Your task to perform on an android device: turn on translation in the chrome app Image 0: 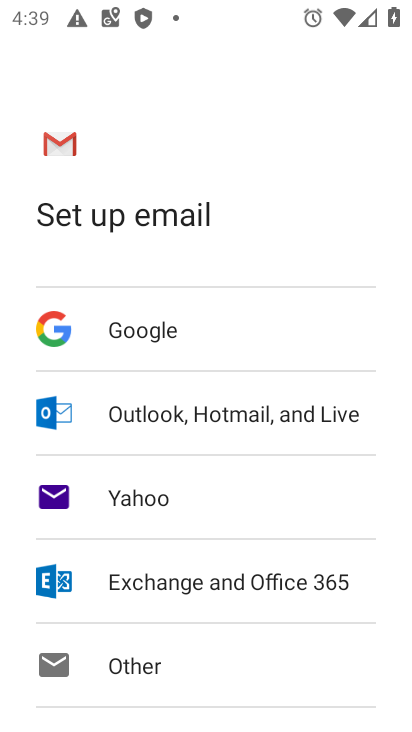
Step 0: press home button
Your task to perform on an android device: turn on translation in the chrome app Image 1: 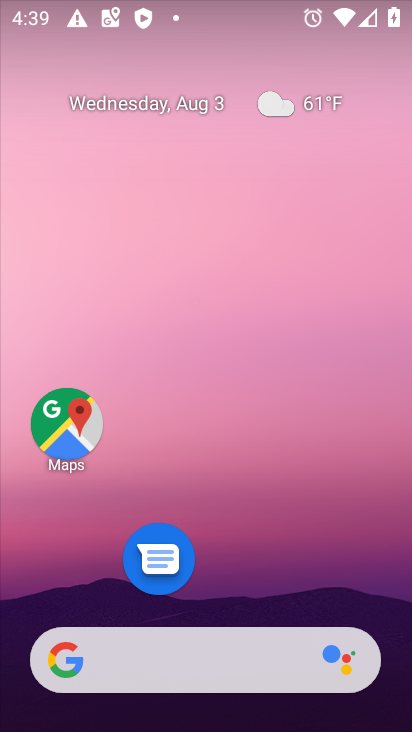
Step 1: drag from (273, 648) to (265, 145)
Your task to perform on an android device: turn on translation in the chrome app Image 2: 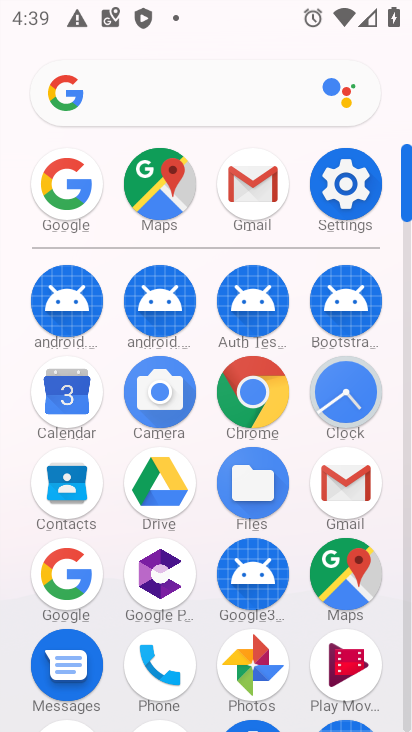
Step 2: click (248, 389)
Your task to perform on an android device: turn on translation in the chrome app Image 3: 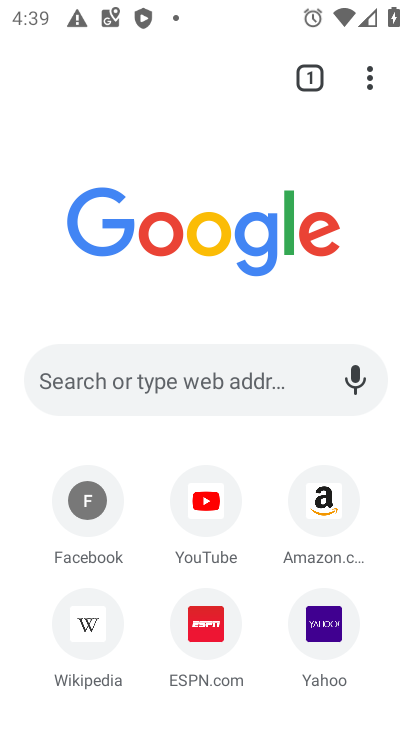
Step 3: click (370, 79)
Your task to perform on an android device: turn on translation in the chrome app Image 4: 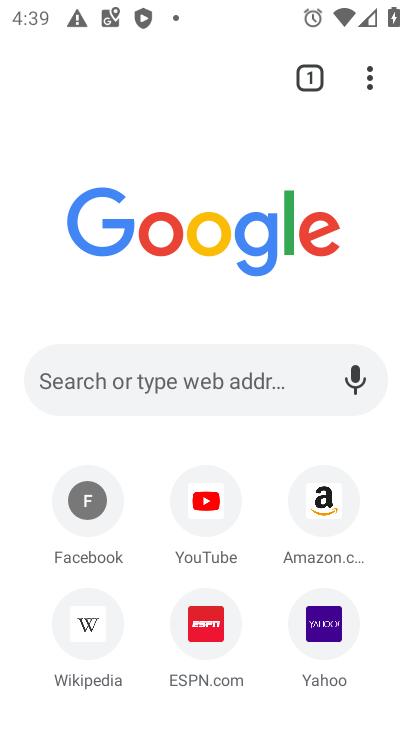
Step 4: click (363, 72)
Your task to perform on an android device: turn on translation in the chrome app Image 5: 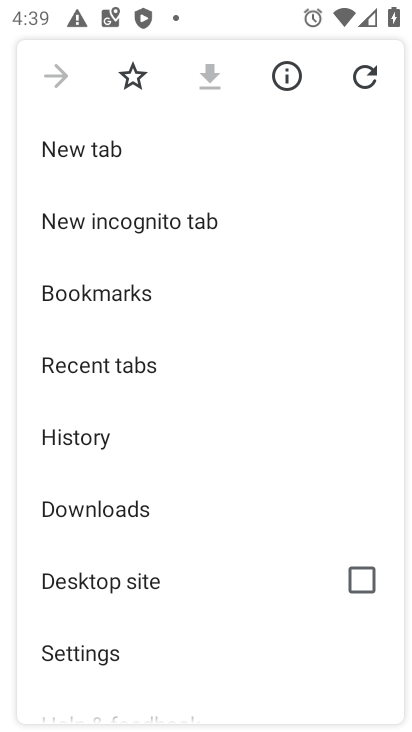
Step 5: click (83, 654)
Your task to perform on an android device: turn on translation in the chrome app Image 6: 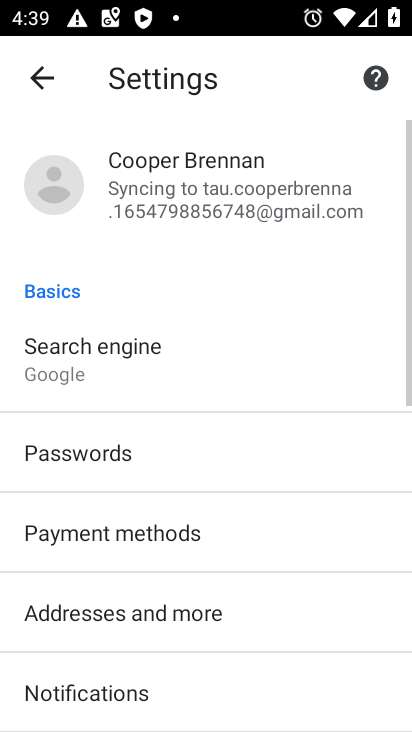
Step 6: drag from (110, 682) to (125, 229)
Your task to perform on an android device: turn on translation in the chrome app Image 7: 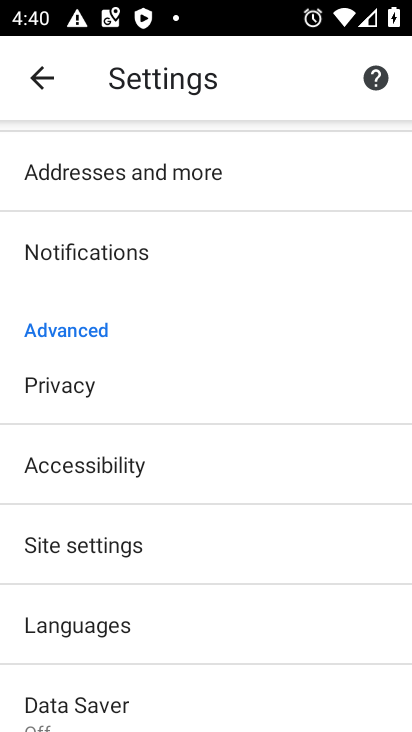
Step 7: click (57, 626)
Your task to perform on an android device: turn on translation in the chrome app Image 8: 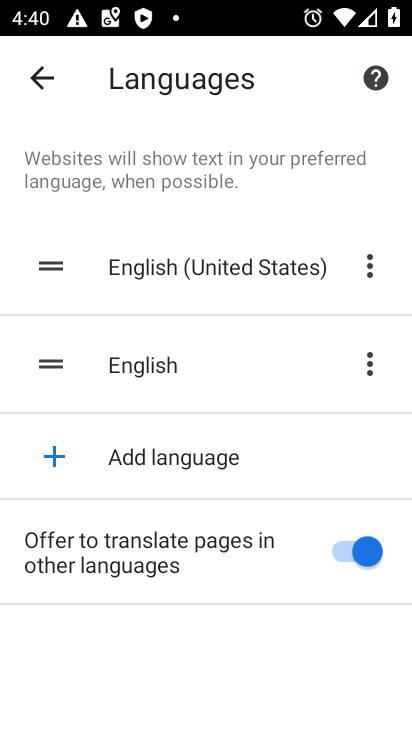
Step 8: task complete